Your task to perform on an android device: add a contact in the contacts app Image 0: 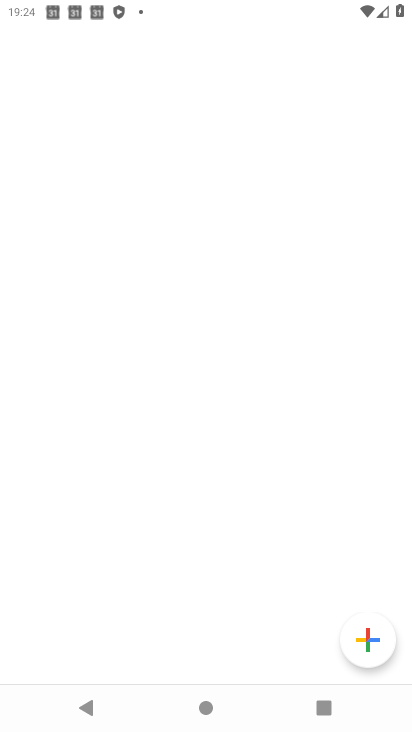
Step 0: drag from (295, 659) to (170, 159)
Your task to perform on an android device: add a contact in the contacts app Image 1: 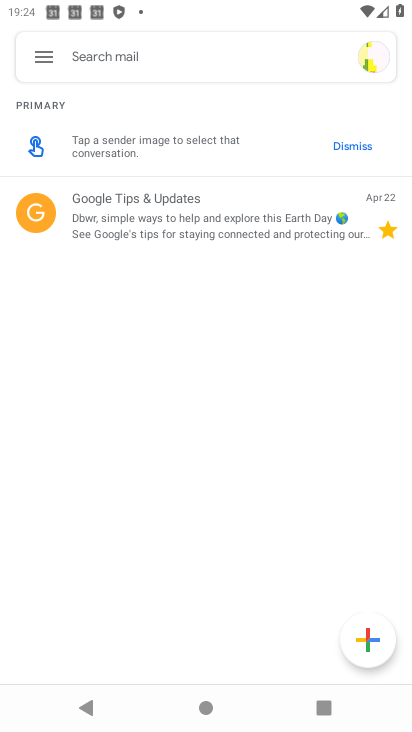
Step 1: press home button
Your task to perform on an android device: add a contact in the contacts app Image 2: 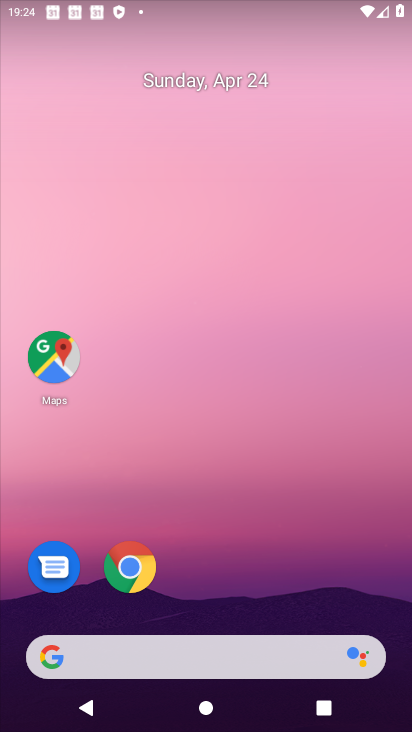
Step 2: drag from (249, 680) to (196, 173)
Your task to perform on an android device: add a contact in the contacts app Image 3: 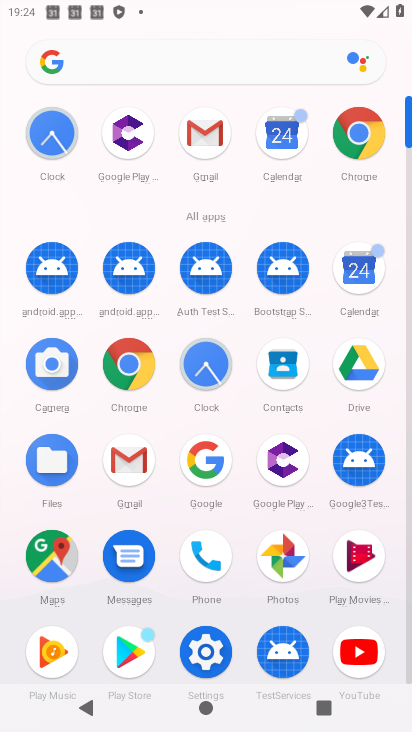
Step 3: click (209, 531)
Your task to perform on an android device: add a contact in the contacts app Image 4: 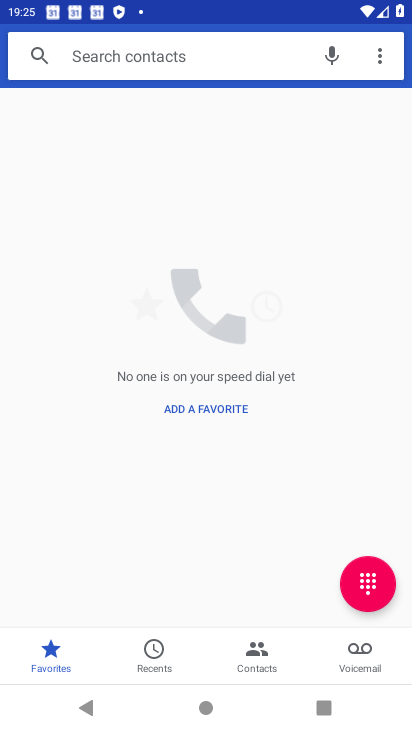
Step 4: click (267, 661)
Your task to perform on an android device: add a contact in the contacts app Image 5: 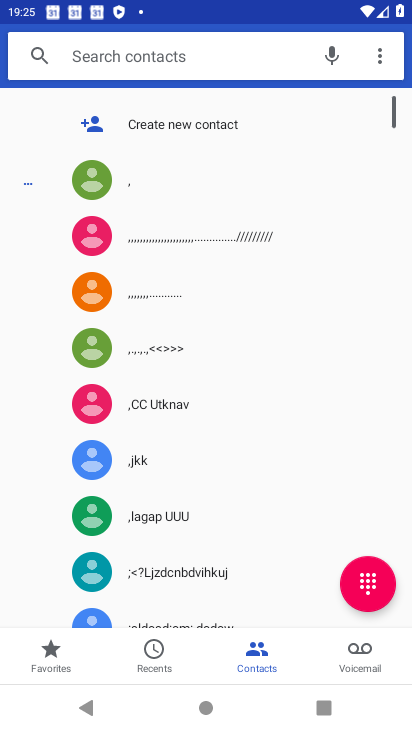
Step 5: click (178, 127)
Your task to perform on an android device: add a contact in the contacts app Image 6: 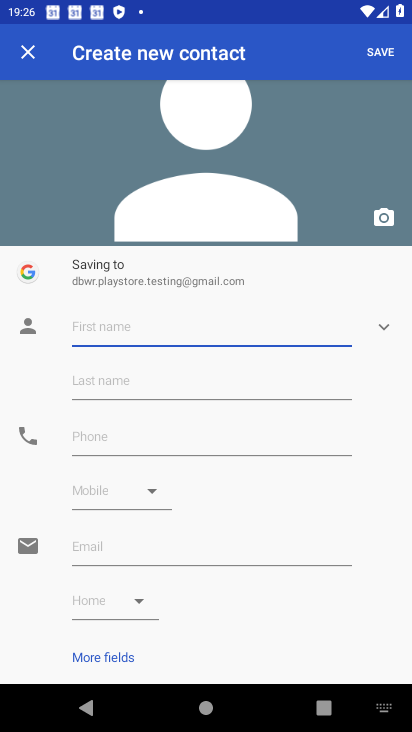
Step 6: click (107, 345)
Your task to perform on an android device: add a contact in the contacts app Image 7: 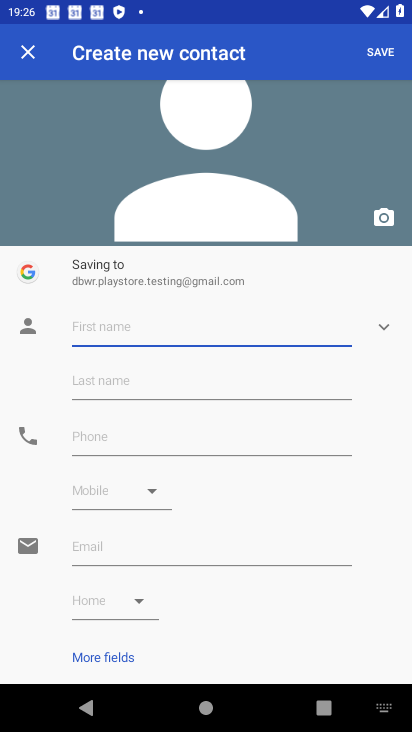
Step 7: click (389, 699)
Your task to perform on an android device: add a contact in the contacts app Image 8: 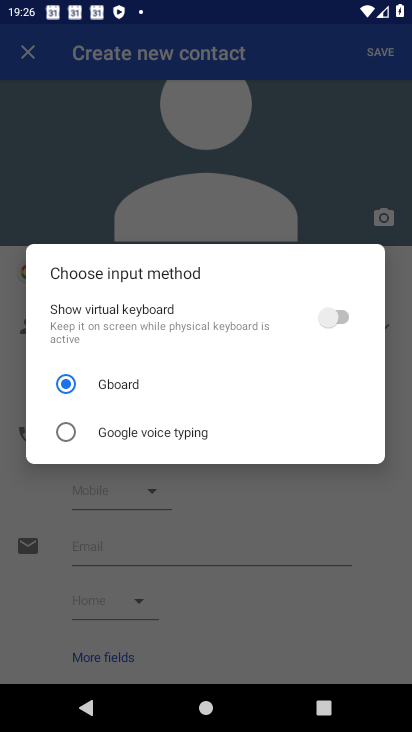
Step 8: click (331, 322)
Your task to perform on an android device: add a contact in the contacts app Image 9: 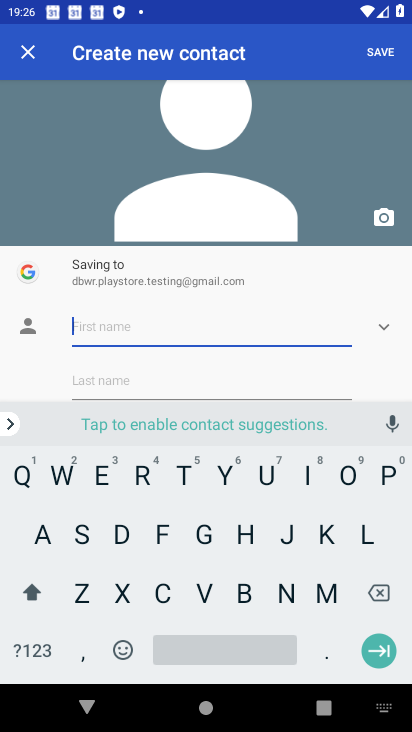
Step 9: click (144, 468)
Your task to perform on an android device: add a contact in the contacts app Image 10: 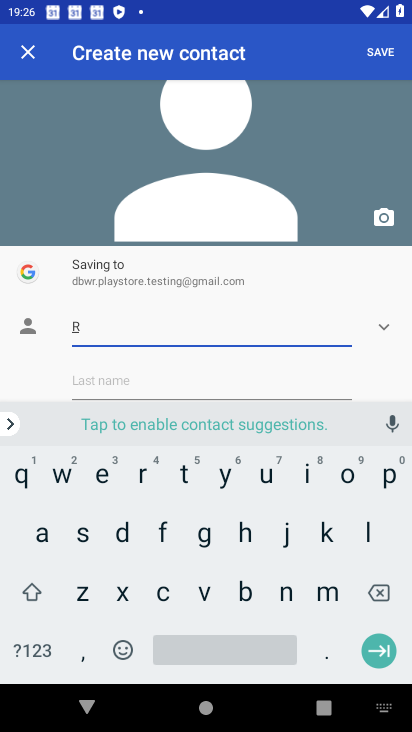
Step 10: click (305, 476)
Your task to perform on an android device: add a contact in the contacts app Image 11: 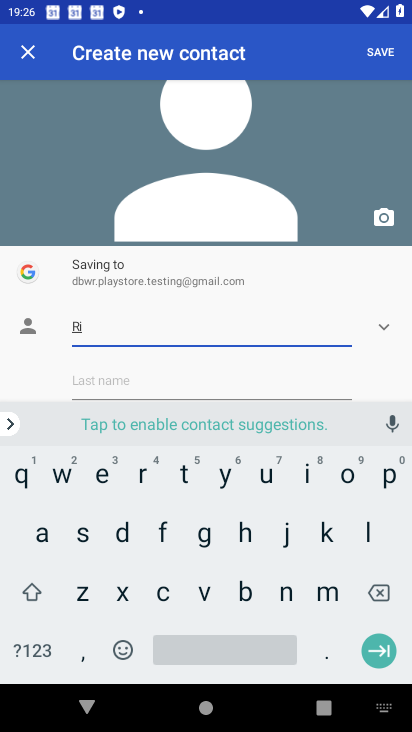
Step 11: click (387, 480)
Your task to perform on an android device: add a contact in the contacts app Image 12: 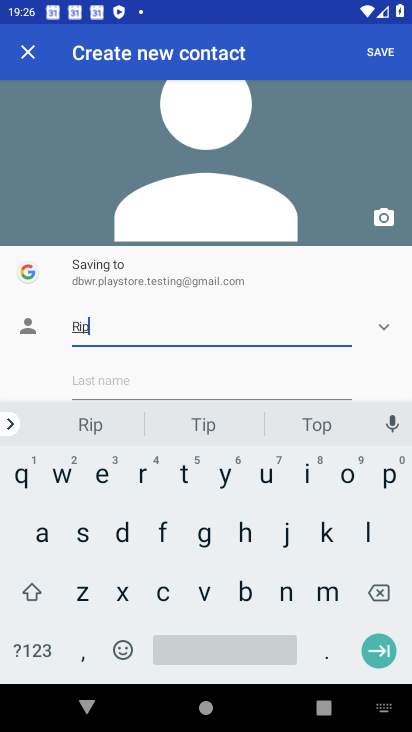
Step 12: drag from (221, 349) to (201, 183)
Your task to perform on an android device: add a contact in the contacts app Image 13: 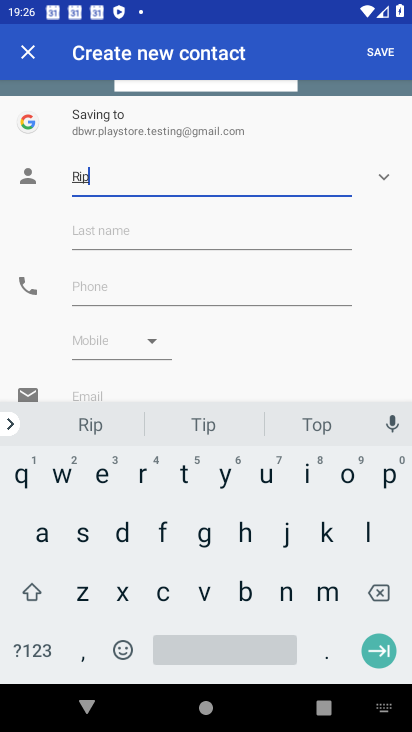
Step 13: click (96, 277)
Your task to perform on an android device: add a contact in the contacts app Image 14: 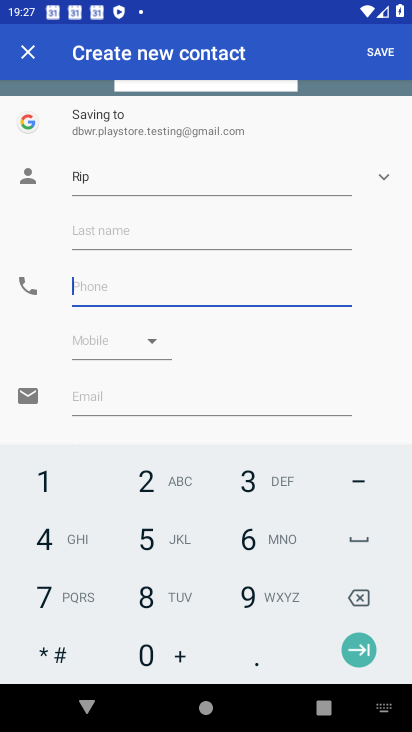
Step 14: click (257, 539)
Your task to perform on an android device: add a contact in the contacts app Image 15: 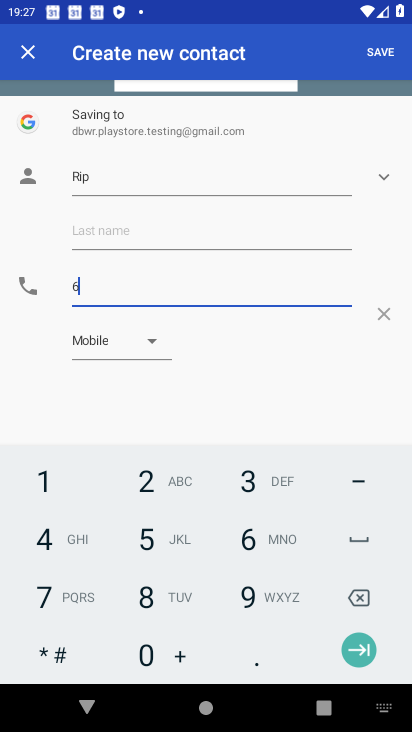
Step 15: click (152, 533)
Your task to perform on an android device: add a contact in the contacts app Image 16: 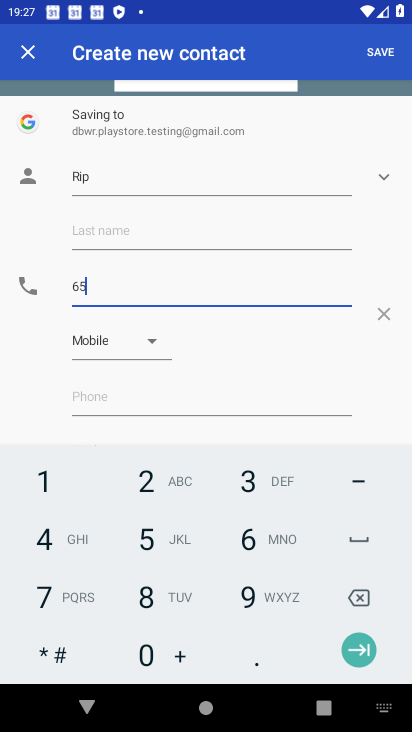
Step 16: click (151, 592)
Your task to perform on an android device: add a contact in the contacts app Image 17: 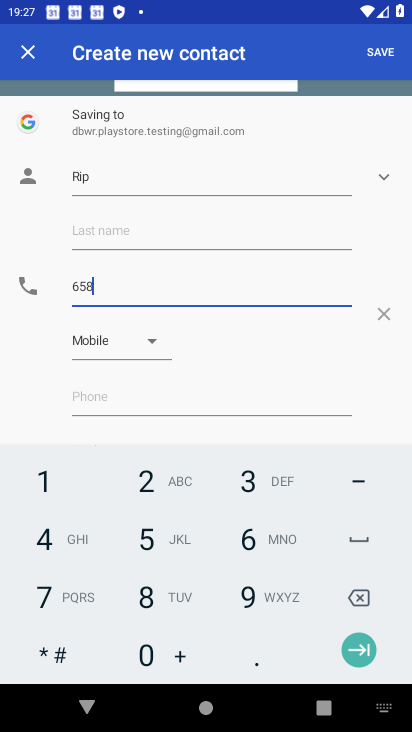
Step 17: click (63, 533)
Your task to perform on an android device: add a contact in the contacts app Image 18: 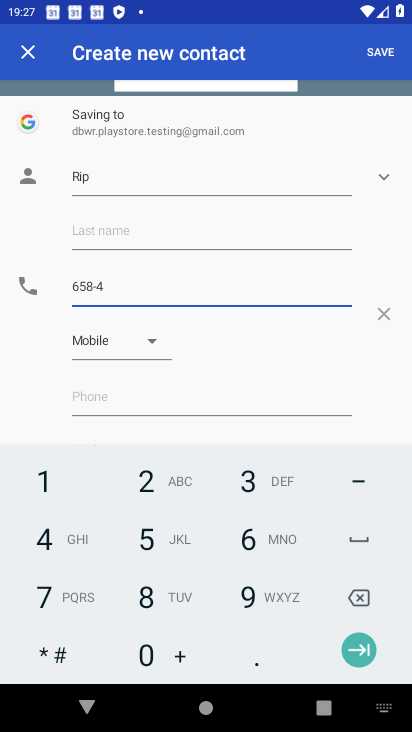
Step 18: click (158, 475)
Your task to perform on an android device: add a contact in the contacts app Image 19: 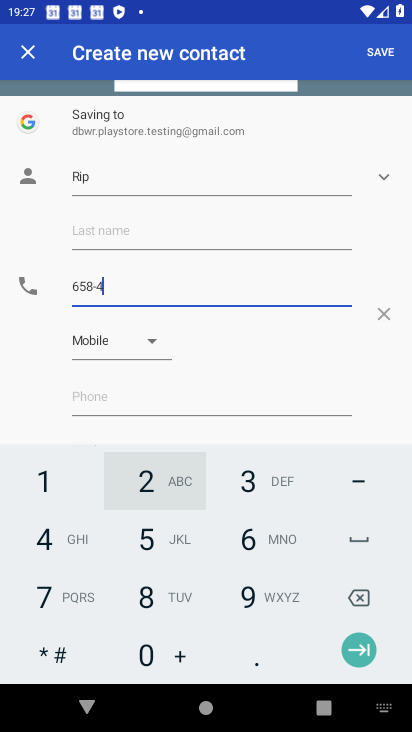
Step 19: click (166, 551)
Your task to perform on an android device: add a contact in the contacts app Image 20: 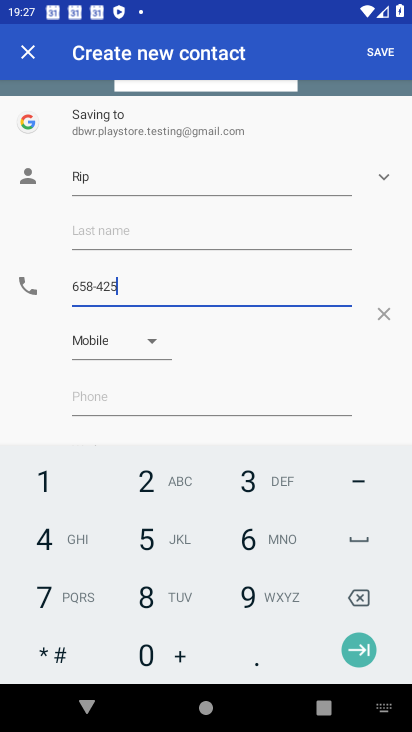
Step 20: click (165, 589)
Your task to perform on an android device: add a contact in the contacts app Image 21: 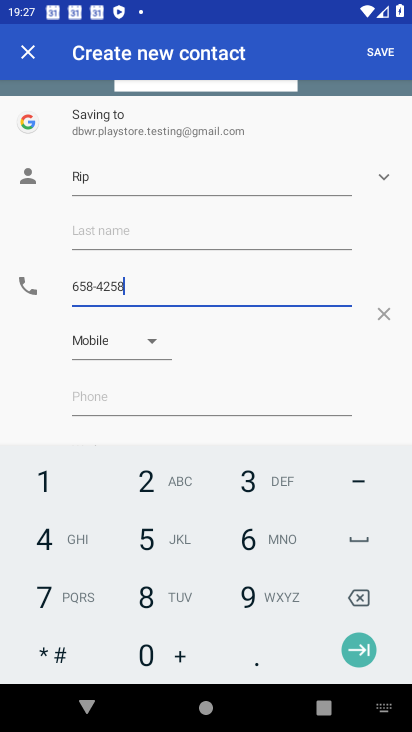
Step 21: click (252, 591)
Your task to perform on an android device: add a contact in the contacts app Image 22: 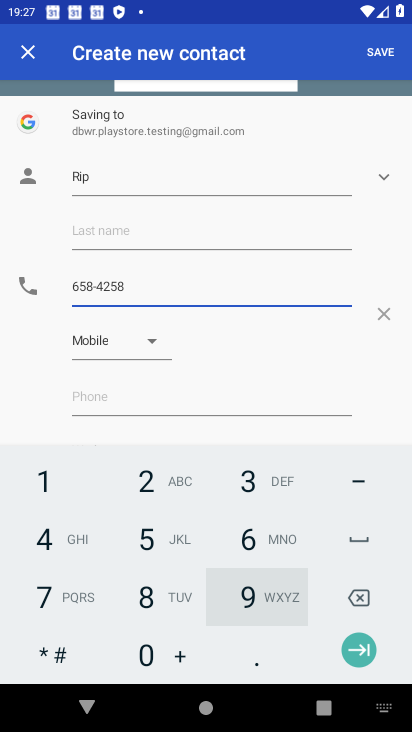
Step 22: click (174, 657)
Your task to perform on an android device: add a contact in the contacts app Image 23: 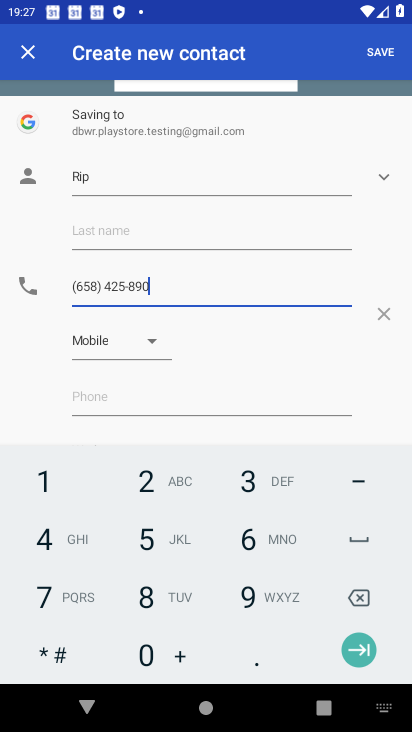
Step 23: click (276, 471)
Your task to perform on an android device: add a contact in the contacts app Image 24: 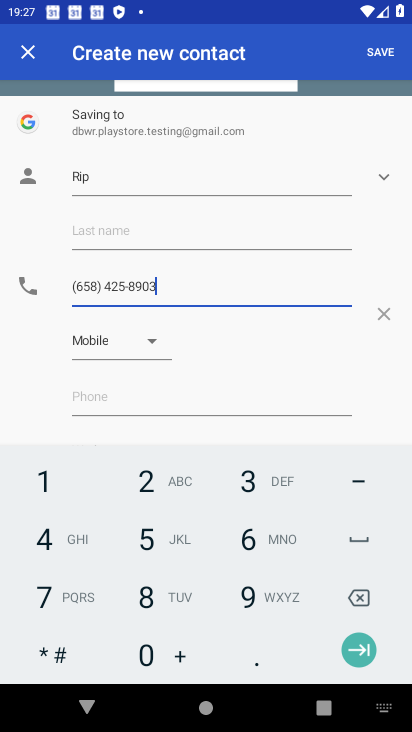
Step 24: click (369, 53)
Your task to perform on an android device: add a contact in the contacts app Image 25: 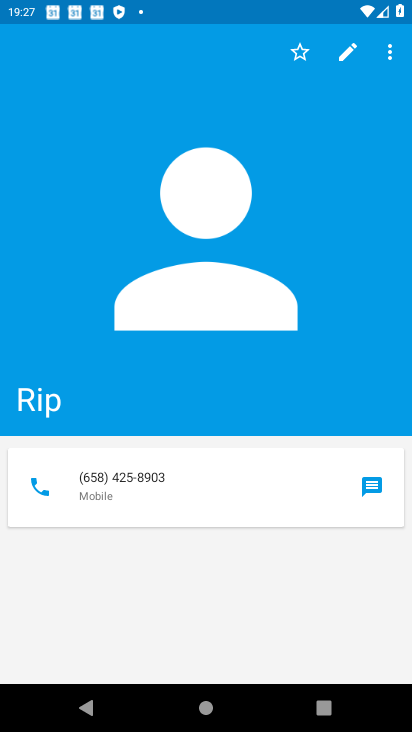
Step 25: task complete